Your task to perform on an android device: open app "Facebook" Image 0: 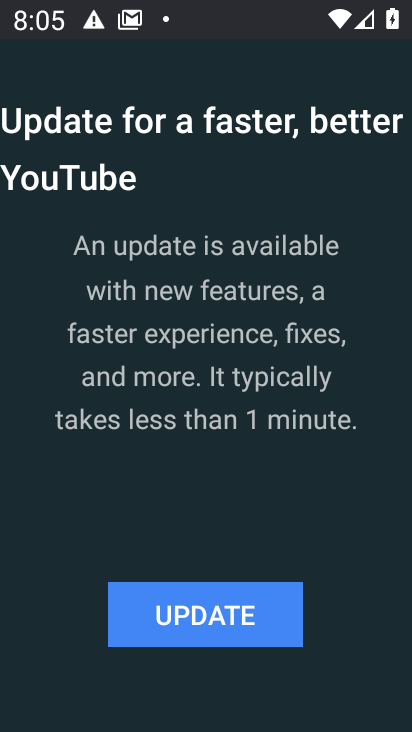
Step 0: press home button
Your task to perform on an android device: open app "Facebook" Image 1: 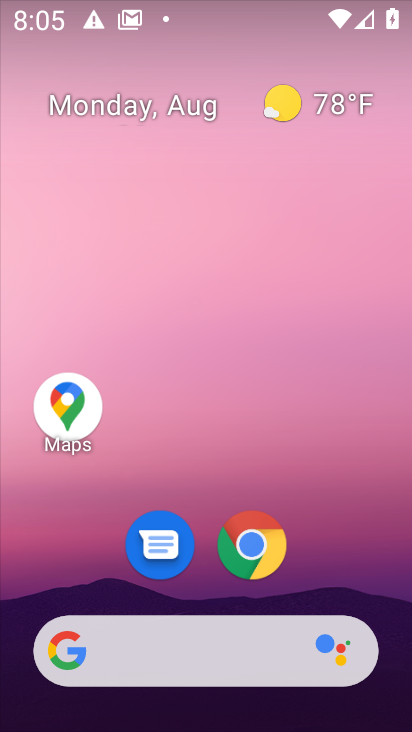
Step 1: drag from (339, 569) to (363, 95)
Your task to perform on an android device: open app "Facebook" Image 2: 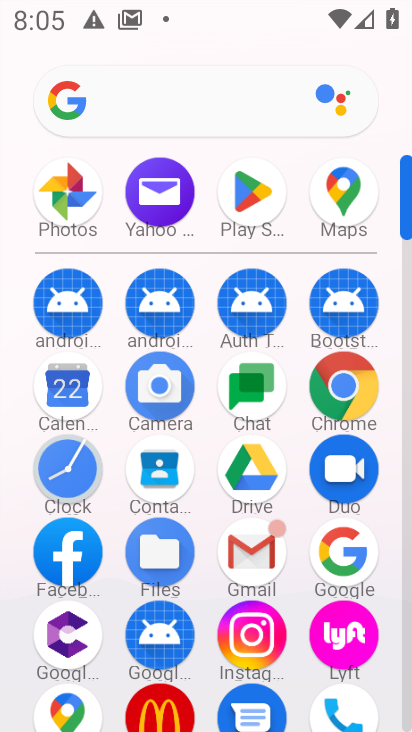
Step 2: click (258, 196)
Your task to perform on an android device: open app "Facebook" Image 3: 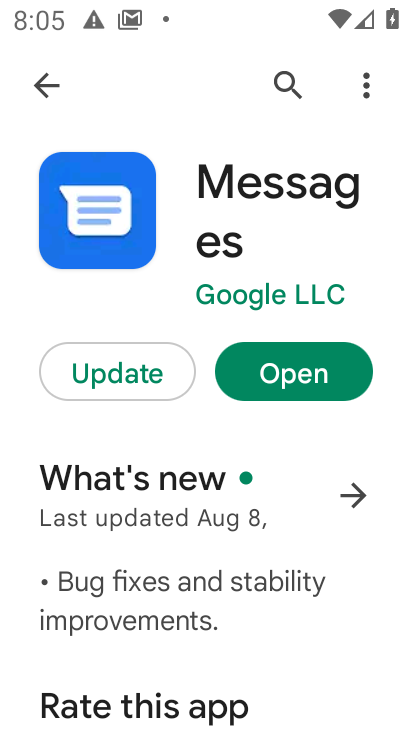
Step 3: press back button
Your task to perform on an android device: open app "Facebook" Image 4: 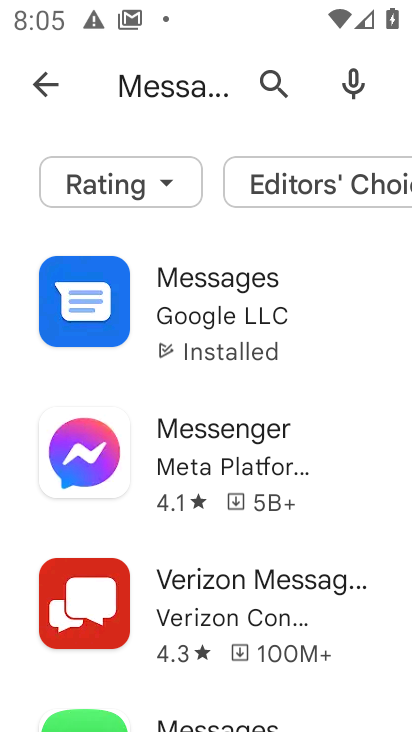
Step 4: press back button
Your task to perform on an android device: open app "Facebook" Image 5: 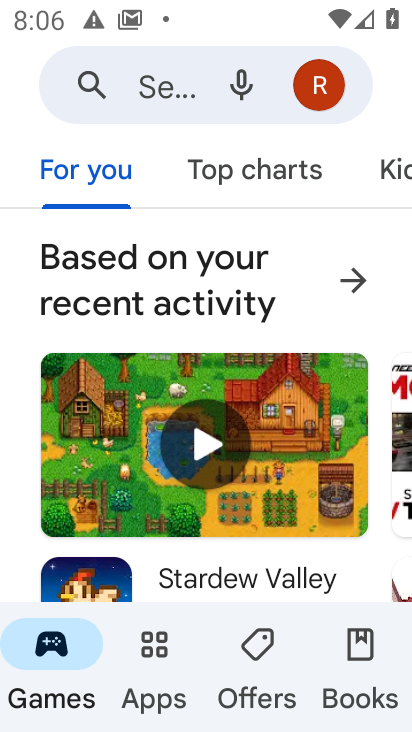
Step 5: click (163, 88)
Your task to perform on an android device: open app "Facebook" Image 6: 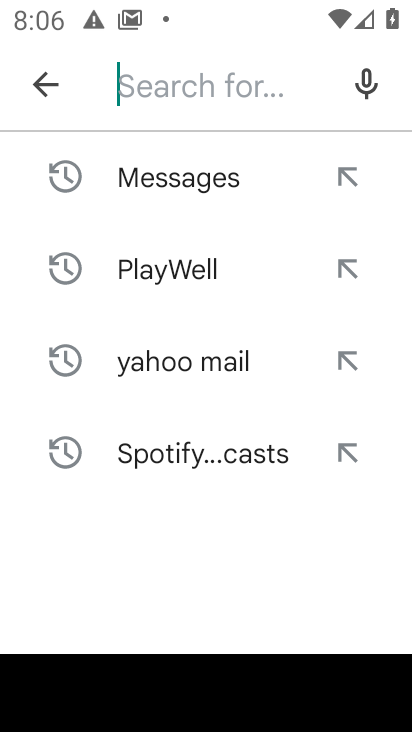
Step 6: type "facebook"
Your task to perform on an android device: open app "Facebook" Image 7: 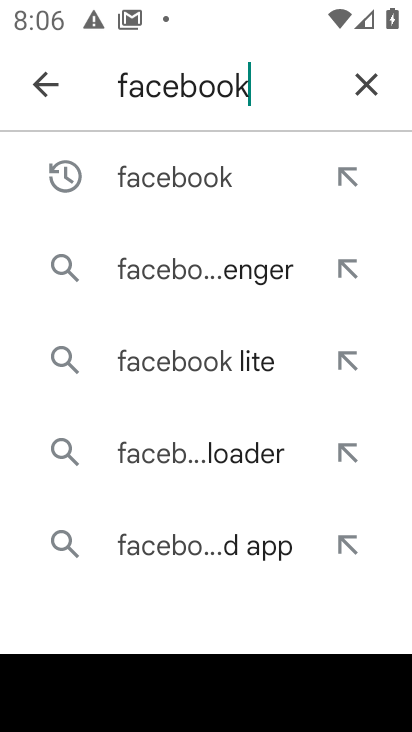
Step 7: click (188, 175)
Your task to perform on an android device: open app "Facebook" Image 8: 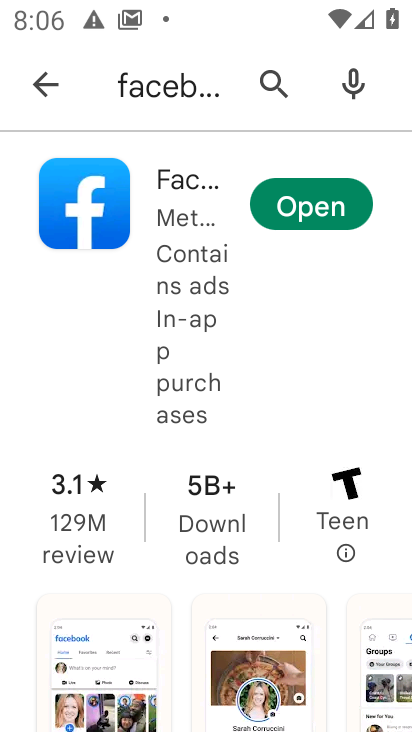
Step 8: click (321, 203)
Your task to perform on an android device: open app "Facebook" Image 9: 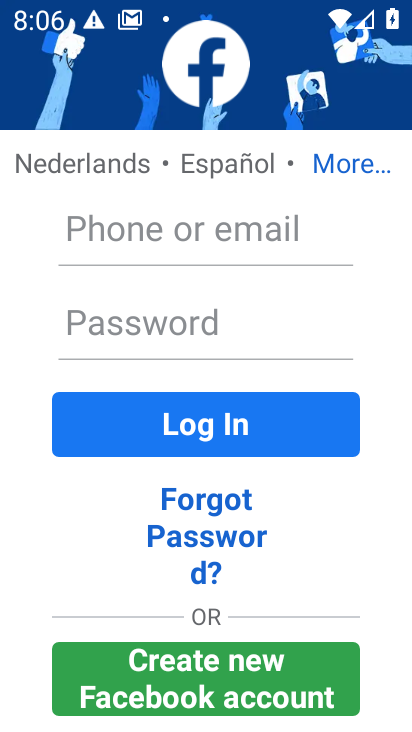
Step 9: task complete